Your task to perform on an android device: Go to privacy settings Image 0: 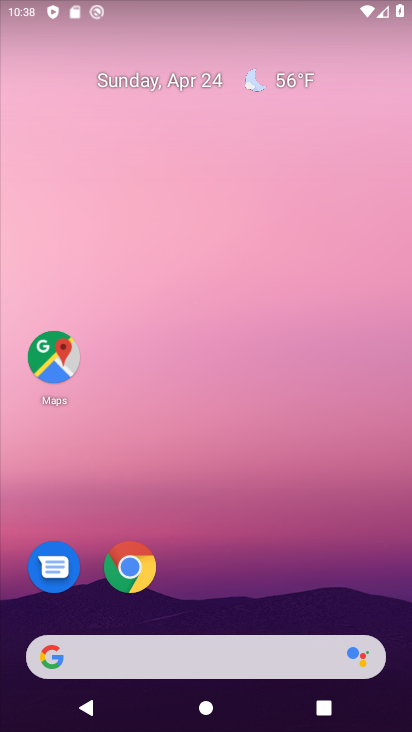
Step 0: click (121, 560)
Your task to perform on an android device: Go to privacy settings Image 1: 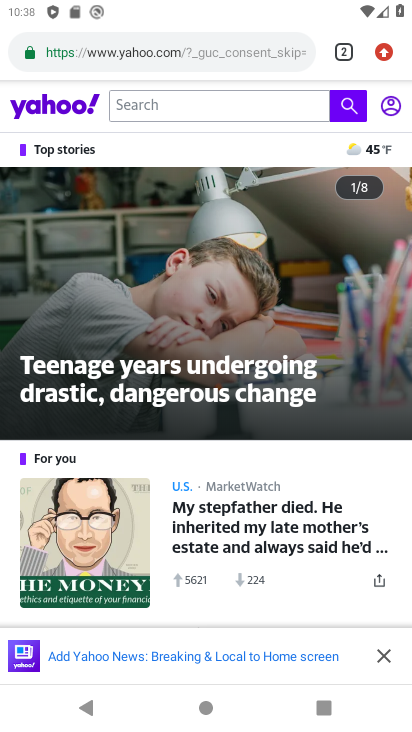
Step 1: click (380, 49)
Your task to perform on an android device: Go to privacy settings Image 2: 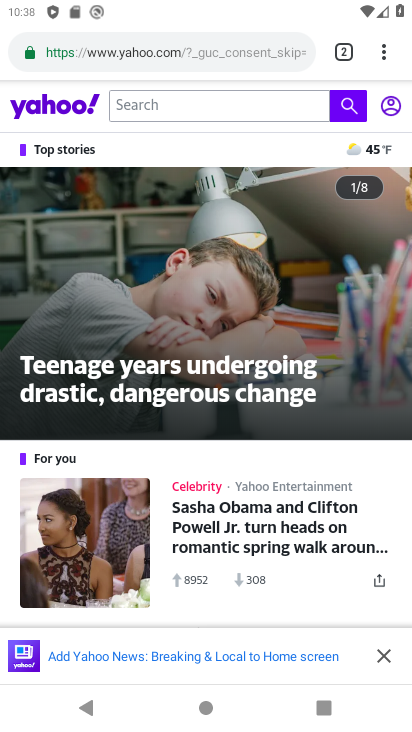
Step 2: click (381, 46)
Your task to perform on an android device: Go to privacy settings Image 3: 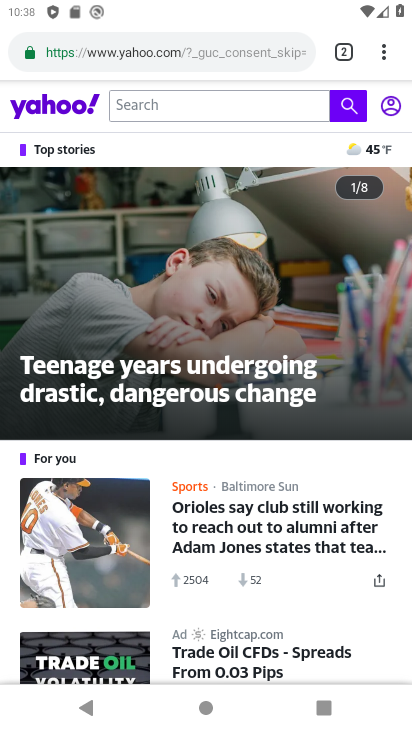
Step 3: click (381, 46)
Your task to perform on an android device: Go to privacy settings Image 4: 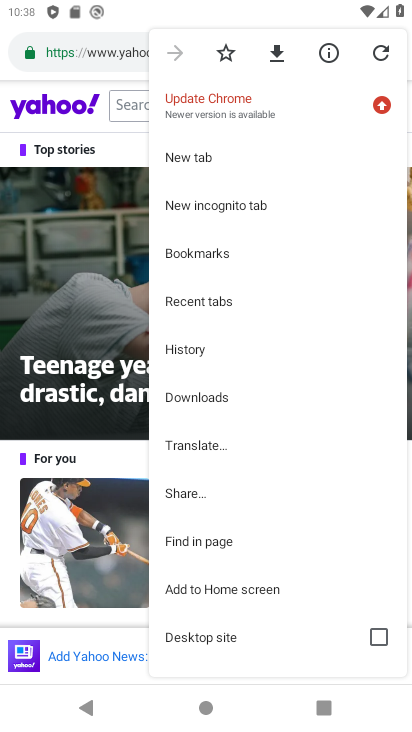
Step 4: drag from (316, 613) to (322, 347)
Your task to perform on an android device: Go to privacy settings Image 5: 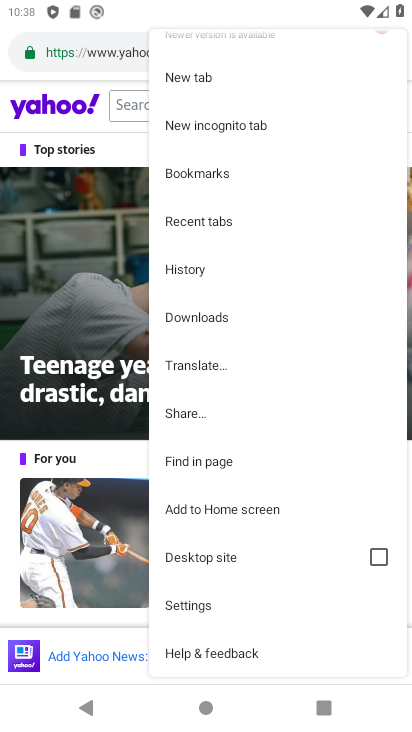
Step 5: click (185, 600)
Your task to perform on an android device: Go to privacy settings Image 6: 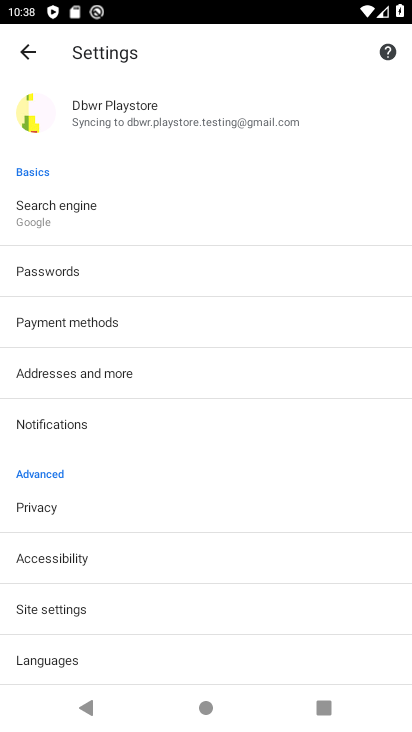
Step 6: click (30, 505)
Your task to perform on an android device: Go to privacy settings Image 7: 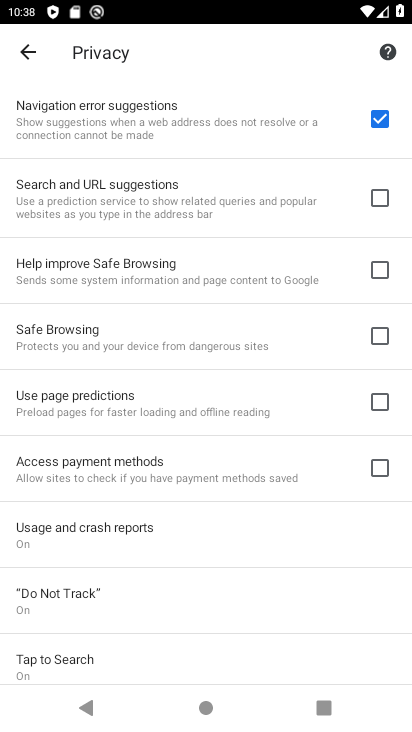
Step 7: task complete